Your task to perform on an android device: turn on bluetooth scan Image 0: 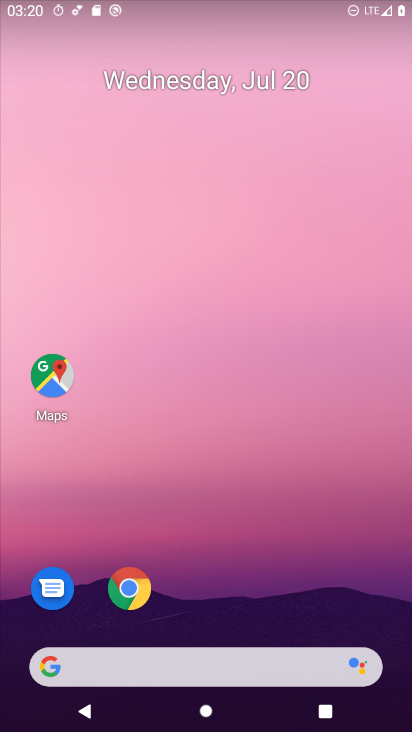
Step 0: drag from (214, 631) to (106, 53)
Your task to perform on an android device: turn on bluetooth scan Image 1: 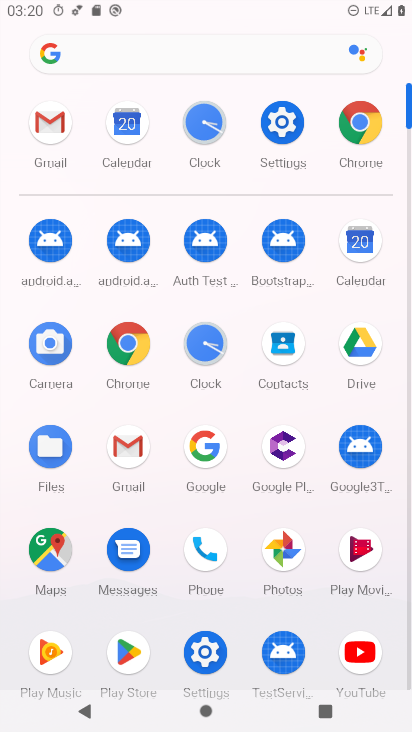
Step 1: click (266, 104)
Your task to perform on an android device: turn on bluetooth scan Image 2: 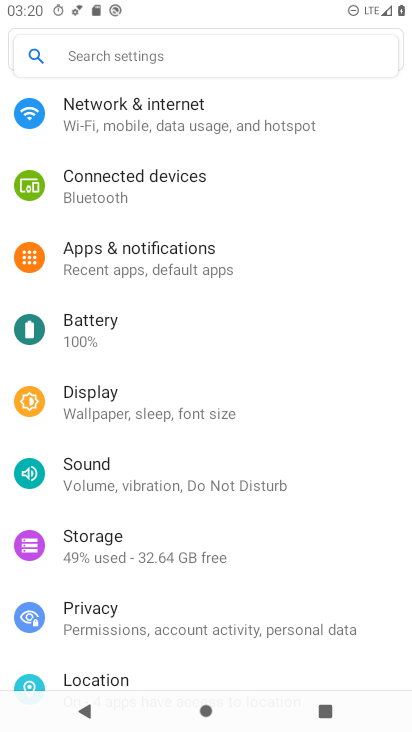
Step 2: drag from (202, 491) to (203, 158)
Your task to perform on an android device: turn on bluetooth scan Image 3: 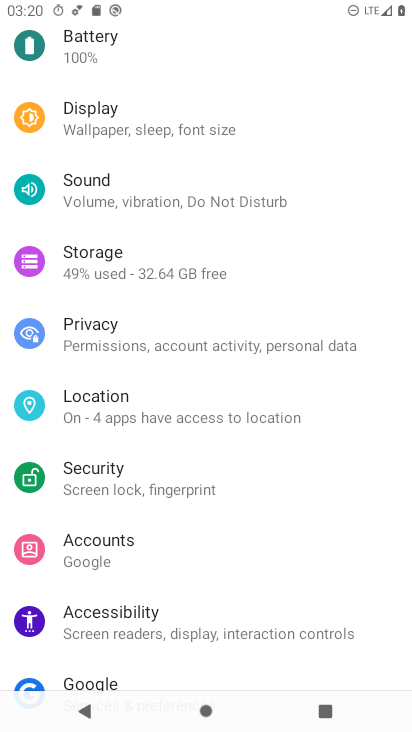
Step 3: click (71, 424)
Your task to perform on an android device: turn on bluetooth scan Image 4: 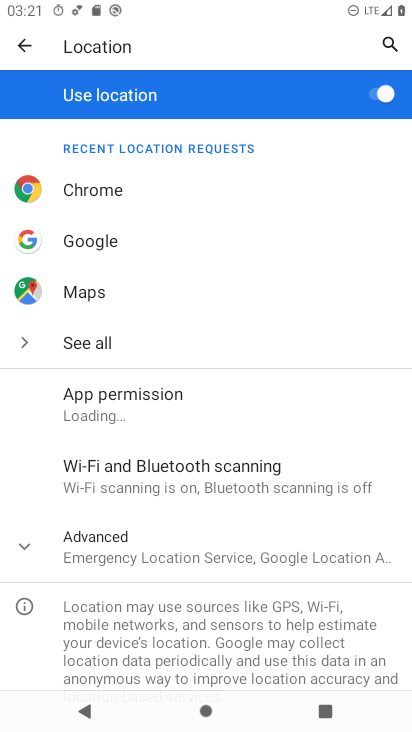
Step 4: click (158, 483)
Your task to perform on an android device: turn on bluetooth scan Image 5: 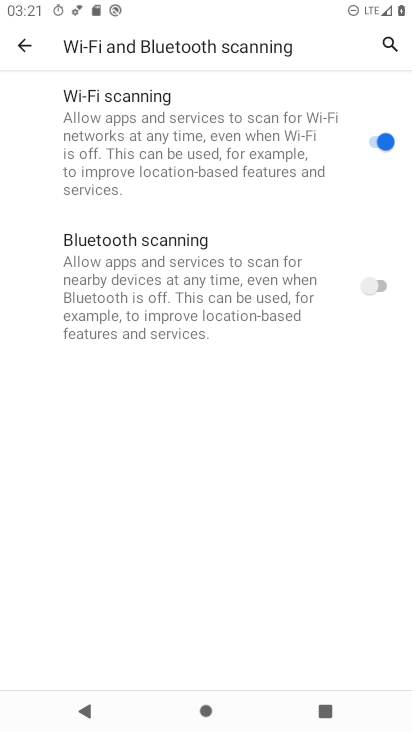
Step 5: click (366, 278)
Your task to perform on an android device: turn on bluetooth scan Image 6: 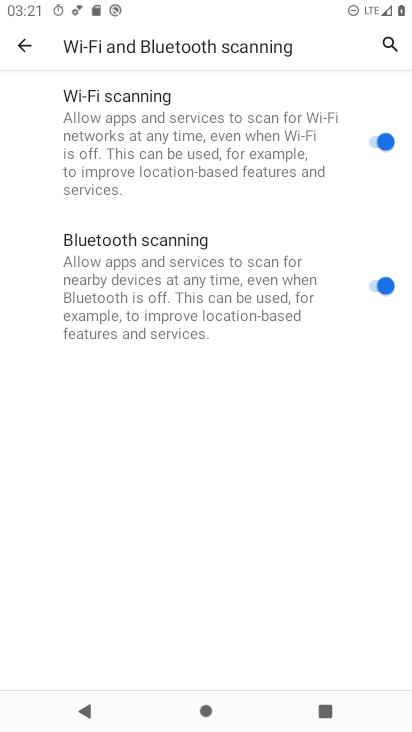
Step 6: task complete